Your task to perform on an android device: check google app version Image 0: 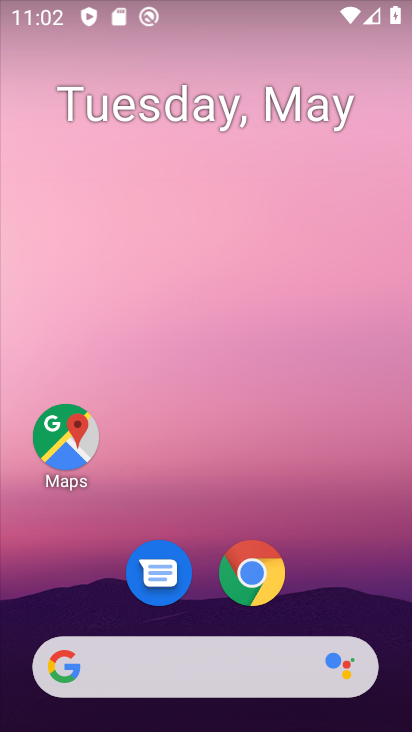
Step 0: drag from (188, 645) to (222, 326)
Your task to perform on an android device: check google app version Image 1: 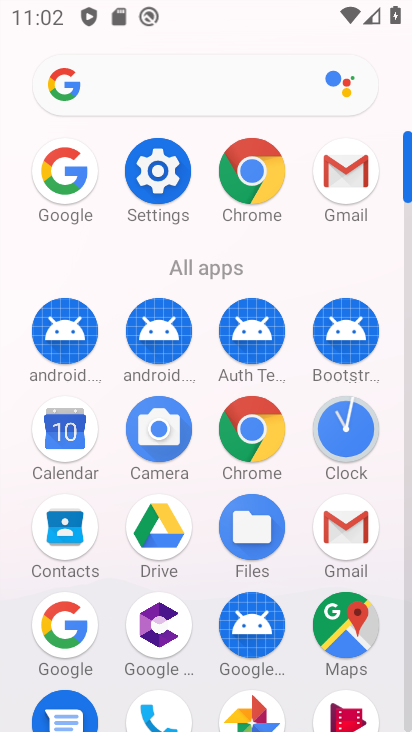
Step 1: click (49, 637)
Your task to perform on an android device: check google app version Image 2: 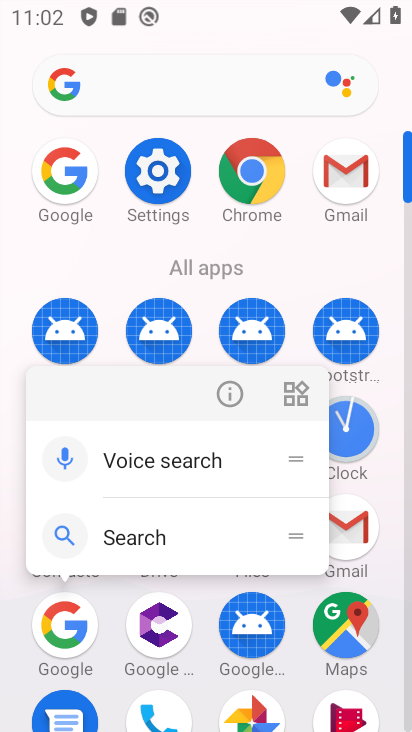
Step 2: click (229, 395)
Your task to perform on an android device: check google app version Image 3: 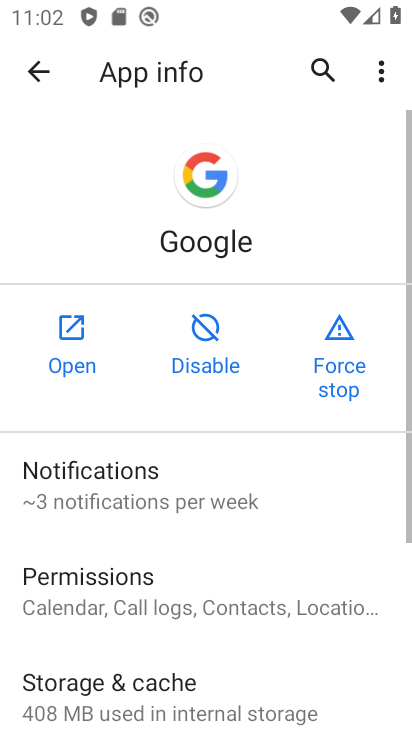
Step 3: drag from (188, 702) to (181, 335)
Your task to perform on an android device: check google app version Image 4: 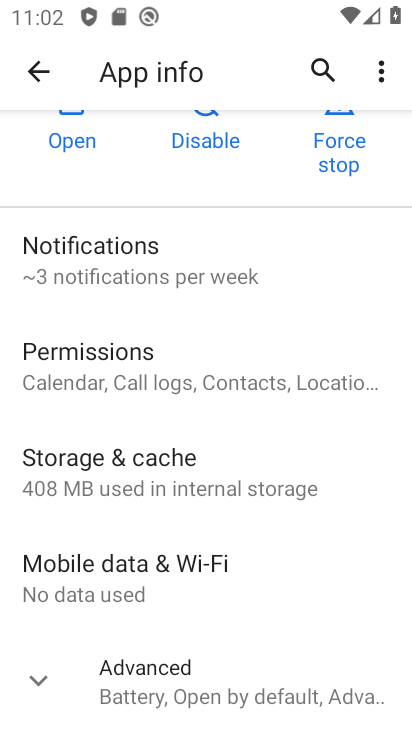
Step 4: click (145, 670)
Your task to perform on an android device: check google app version Image 5: 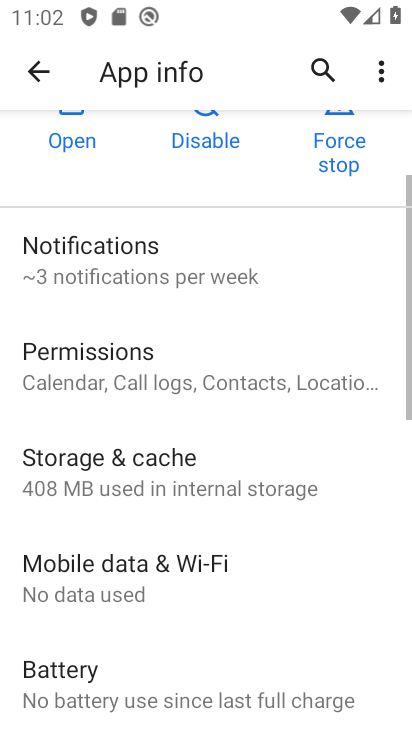
Step 5: task complete